Your task to perform on an android device: turn on sleep mode Image 0: 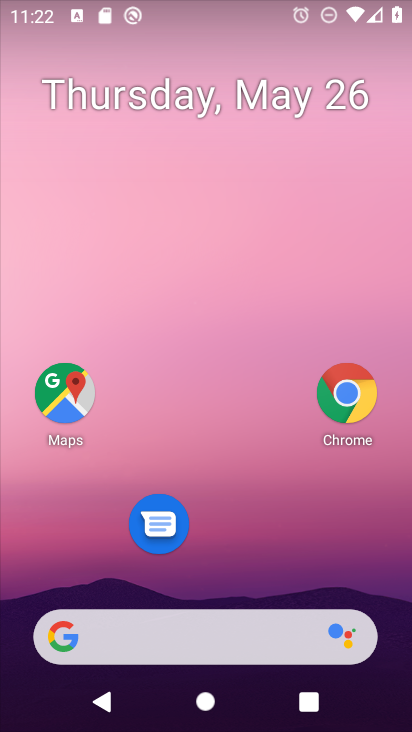
Step 0: drag from (228, 532) to (258, 55)
Your task to perform on an android device: turn on sleep mode Image 1: 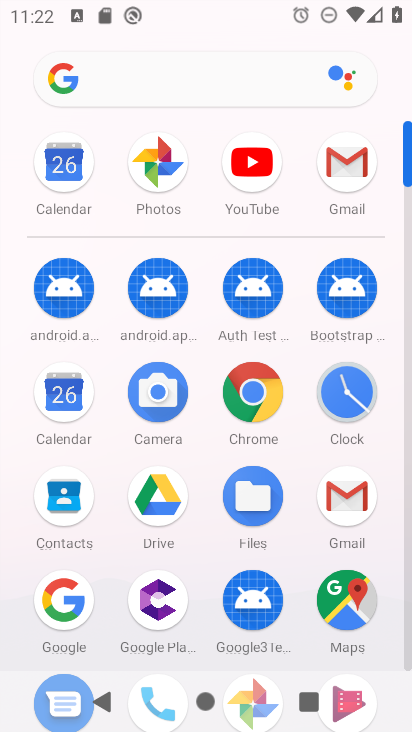
Step 1: drag from (202, 466) to (197, 191)
Your task to perform on an android device: turn on sleep mode Image 2: 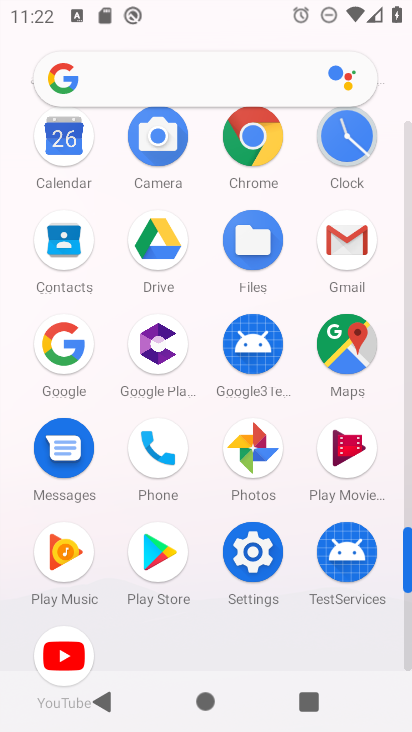
Step 2: click (252, 557)
Your task to perform on an android device: turn on sleep mode Image 3: 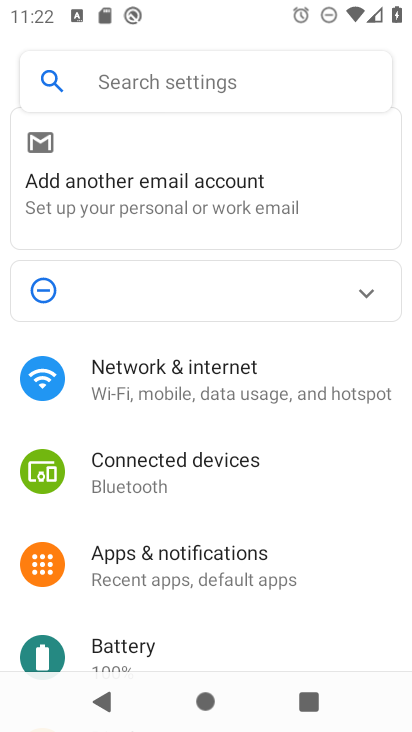
Step 3: drag from (231, 551) to (199, 142)
Your task to perform on an android device: turn on sleep mode Image 4: 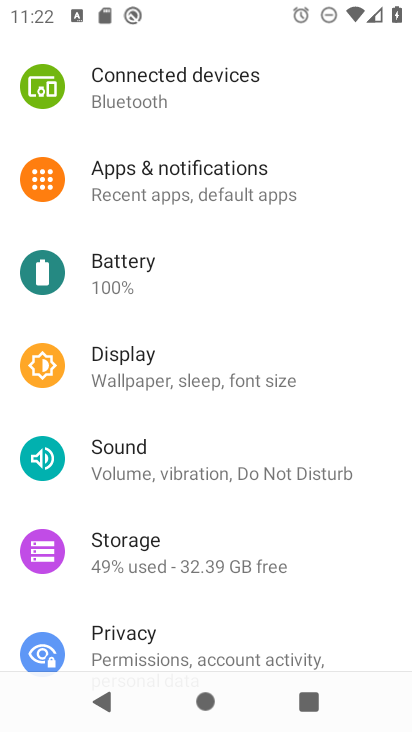
Step 4: click (213, 371)
Your task to perform on an android device: turn on sleep mode Image 5: 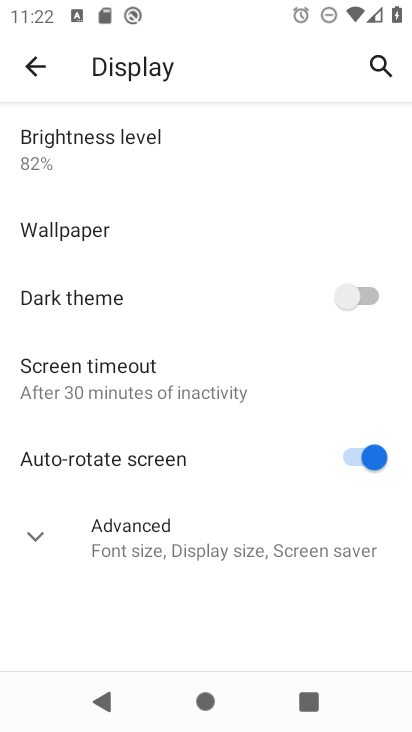
Step 5: click (31, 532)
Your task to perform on an android device: turn on sleep mode Image 6: 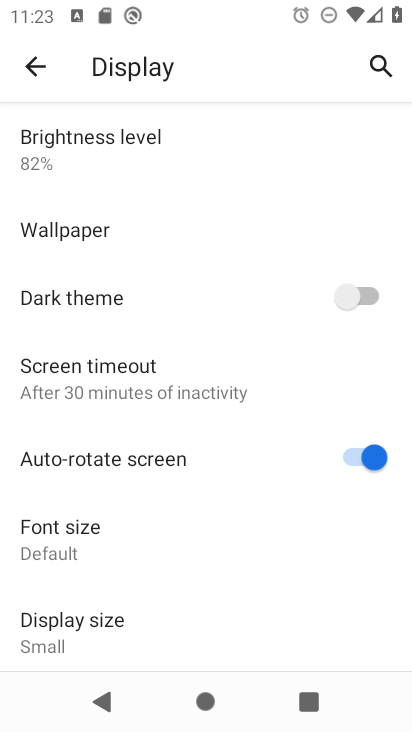
Step 6: task complete